Your task to perform on an android device: Open the map Image 0: 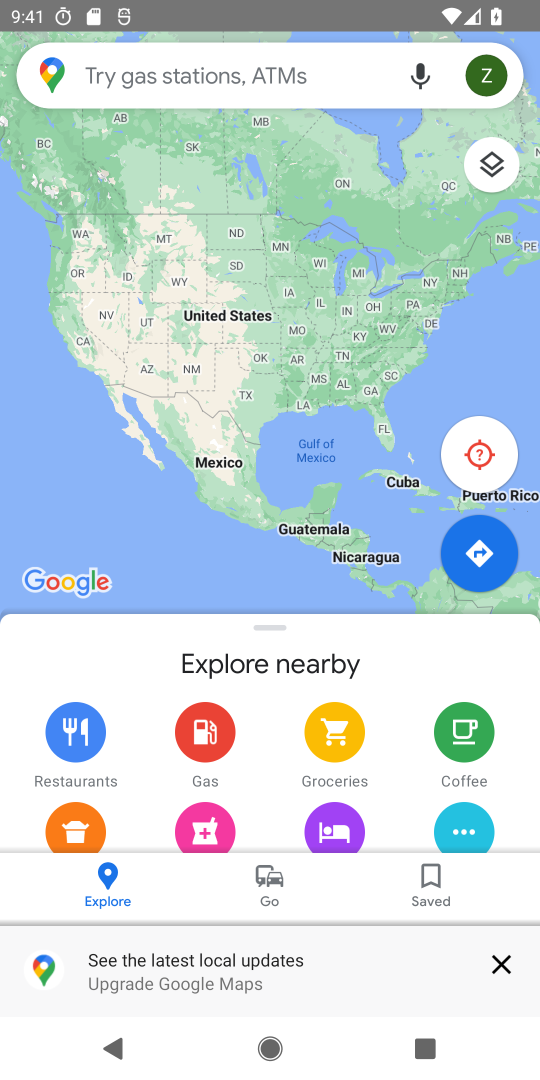
Step 0: drag from (284, 611) to (295, 269)
Your task to perform on an android device: Open the map Image 1: 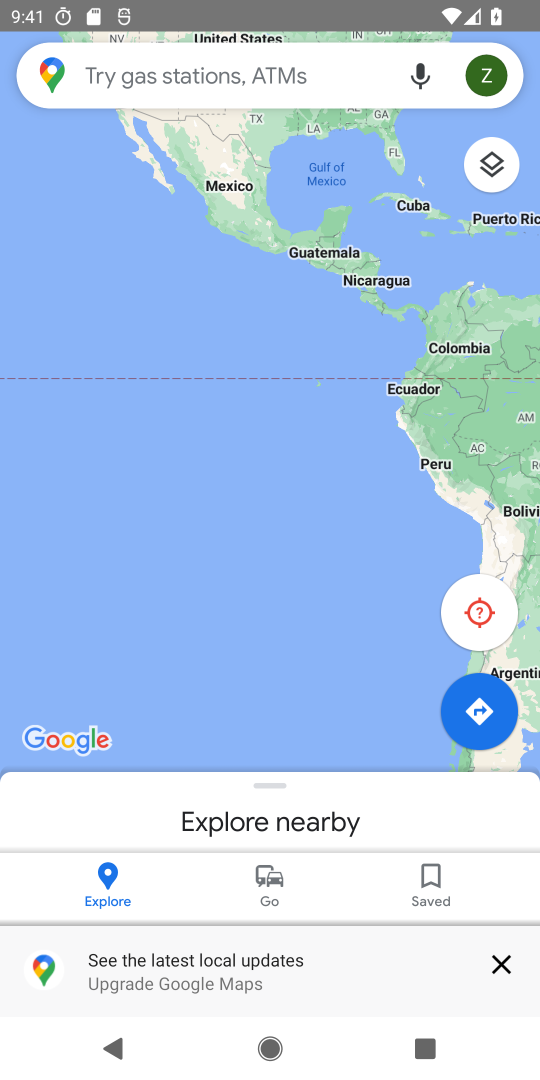
Step 1: drag from (264, 800) to (306, 270)
Your task to perform on an android device: Open the map Image 2: 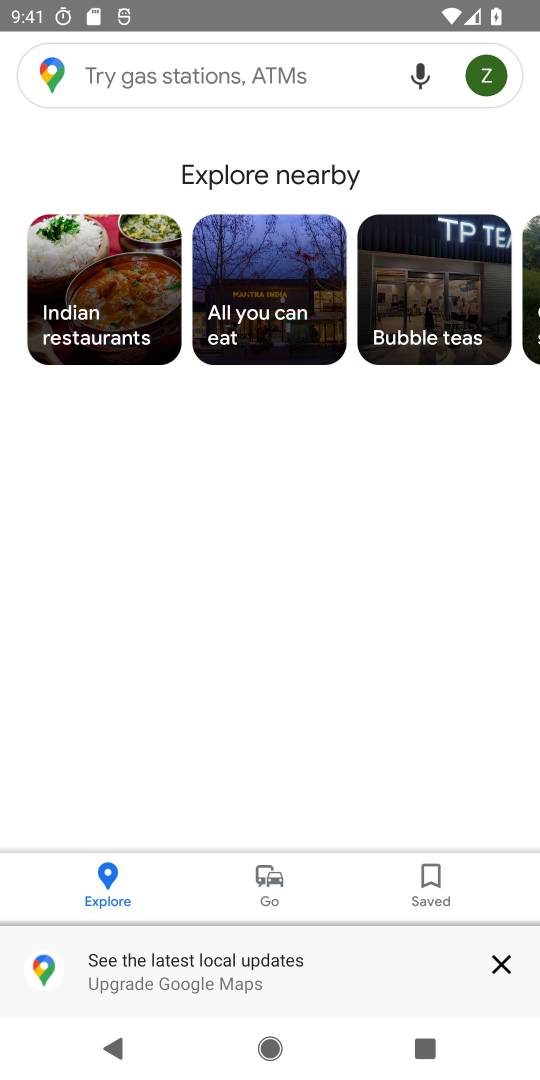
Step 2: click (499, 955)
Your task to perform on an android device: Open the map Image 3: 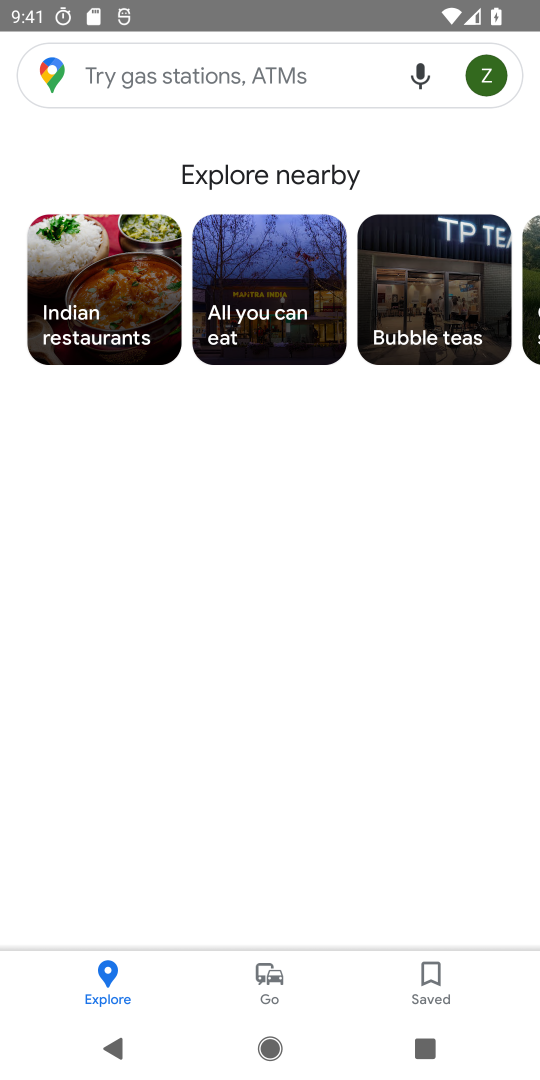
Step 3: task complete